Your task to perform on an android device: open app "Google Find My Device" (install if not already installed) Image 0: 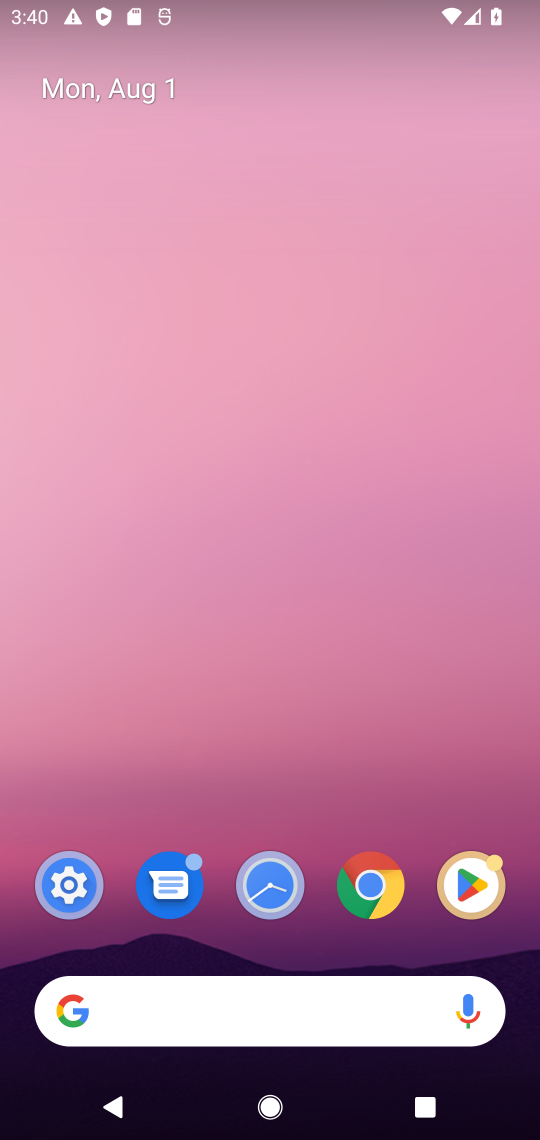
Step 0: click (496, 881)
Your task to perform on an android device: open app "Google Find My Device" (install if not already installed) Image 1: 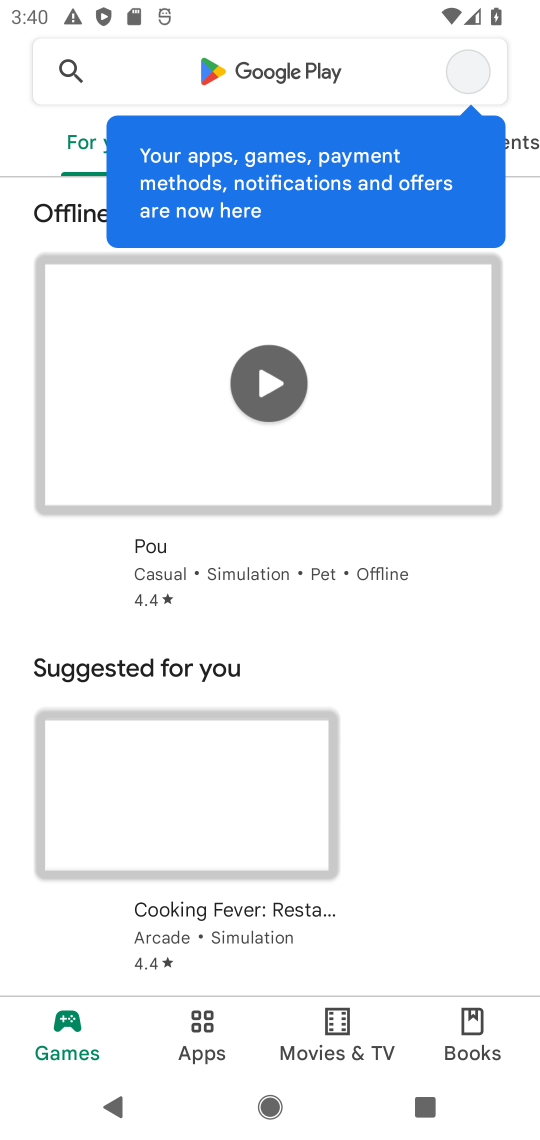
Step 1: click (255, 80)
Your task to perform on an android device: open app "Google Find My Device" (install if not already installed) Image 2: 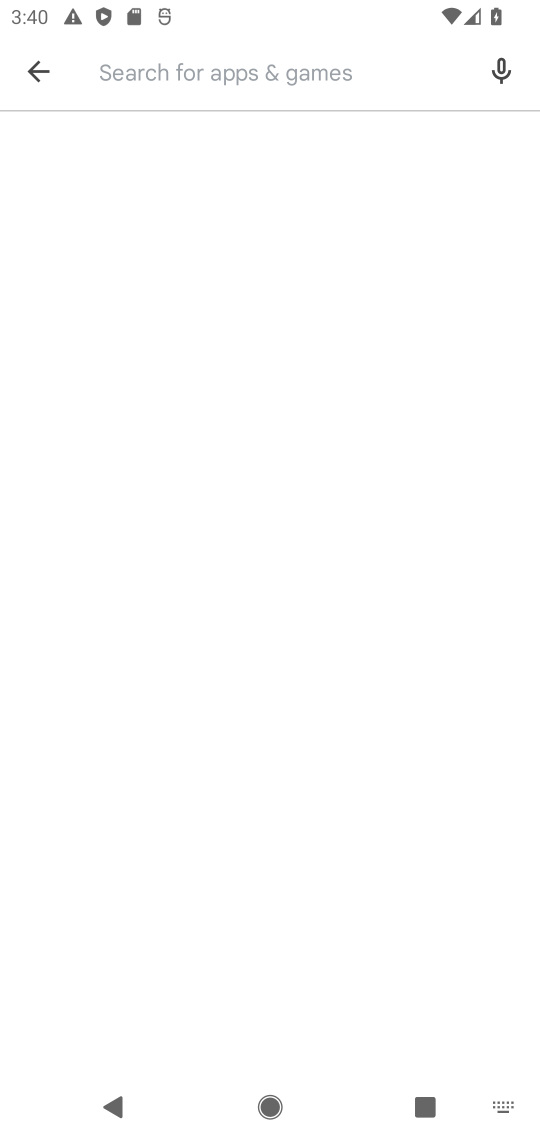
Step 2: click (67, 52)
Your task to perform on an android device: open app "Google Find My Device" (install if not already installed) Image 3: 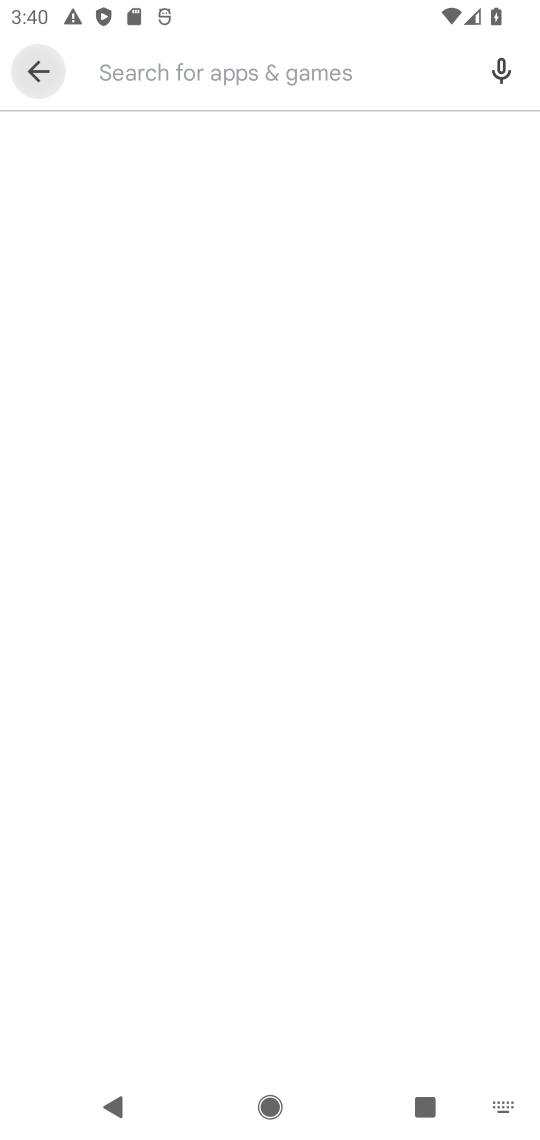
Step 3: click (178, 71)
Your task to perform on an android device: open app "Google Find My Device" (install if not already installed) Image 4: 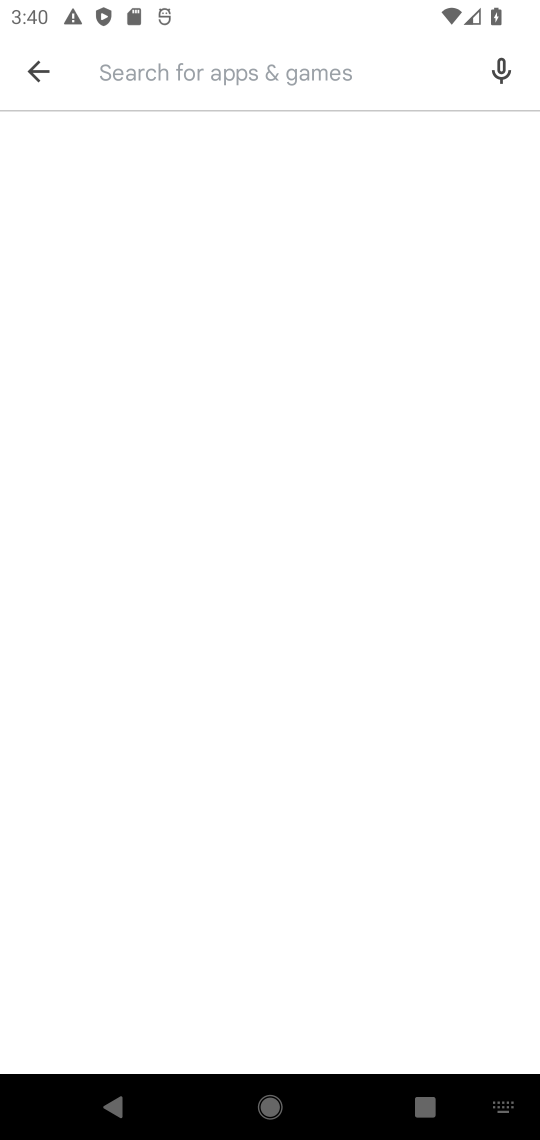
Step 4: type "google find my device"
Your task to perform on an android device: open app "Google Find My Device" (install if not already installed) Image 5: 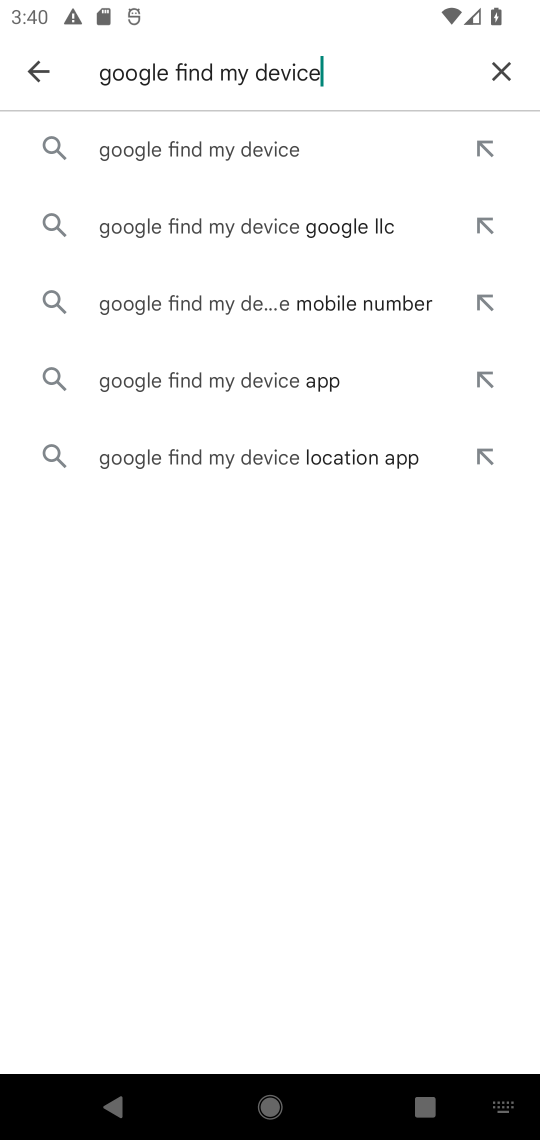
Step 5: click (336, 154)
Your task to perform on an android device: open app "Google Find My Device" (install if not already installed) Image 6: 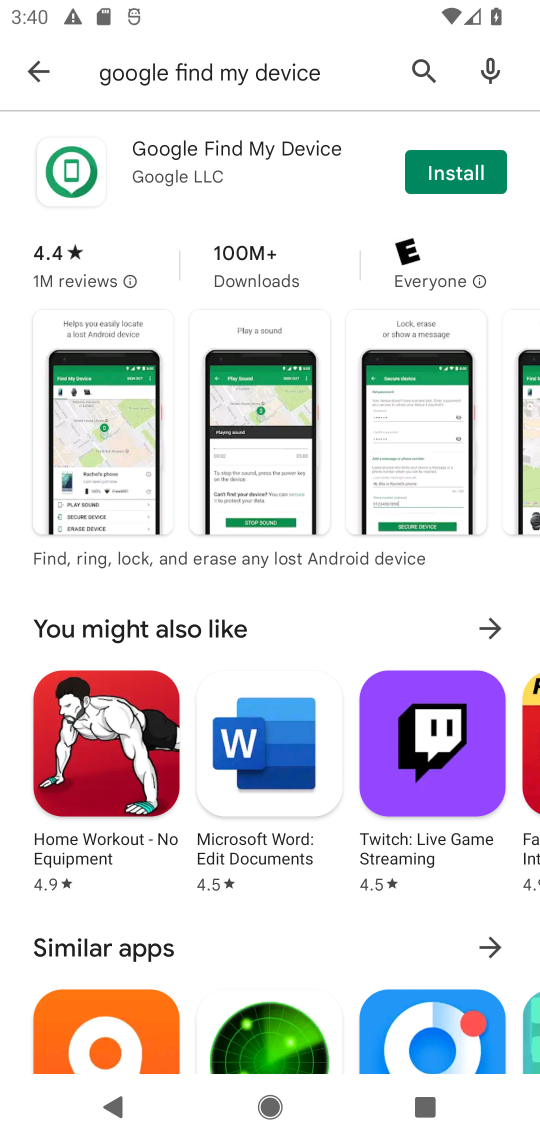
Step 6: click (427, 165)
Your task to perform on an android device: open app "Google Find My Device" (install if not already installed) Image 7: 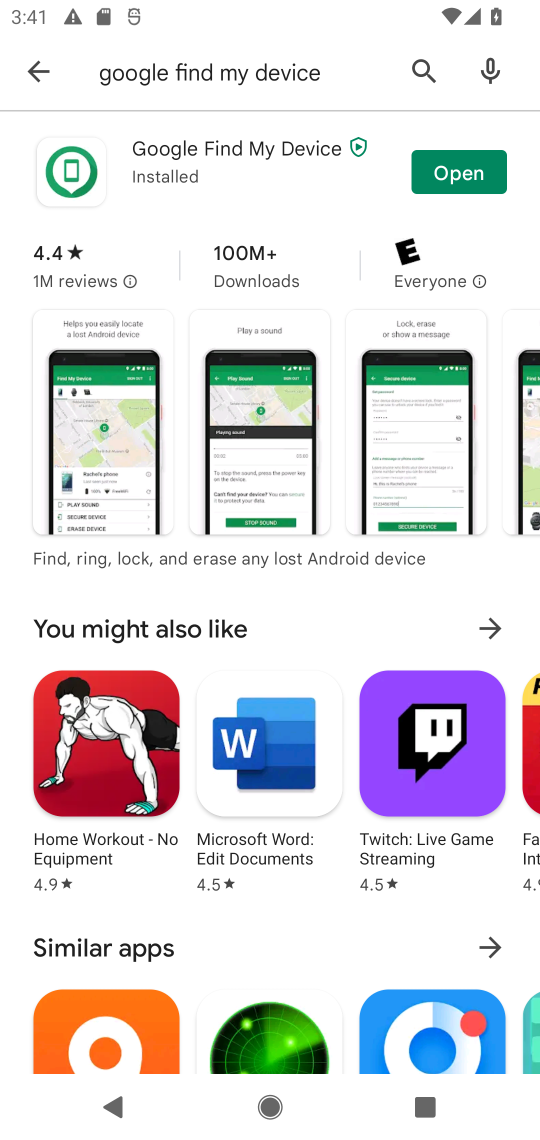
Step 7: click (459, 167)
Your task to perform on an android device: open app "Google Find My Device" (install if not already installed) Image 8: 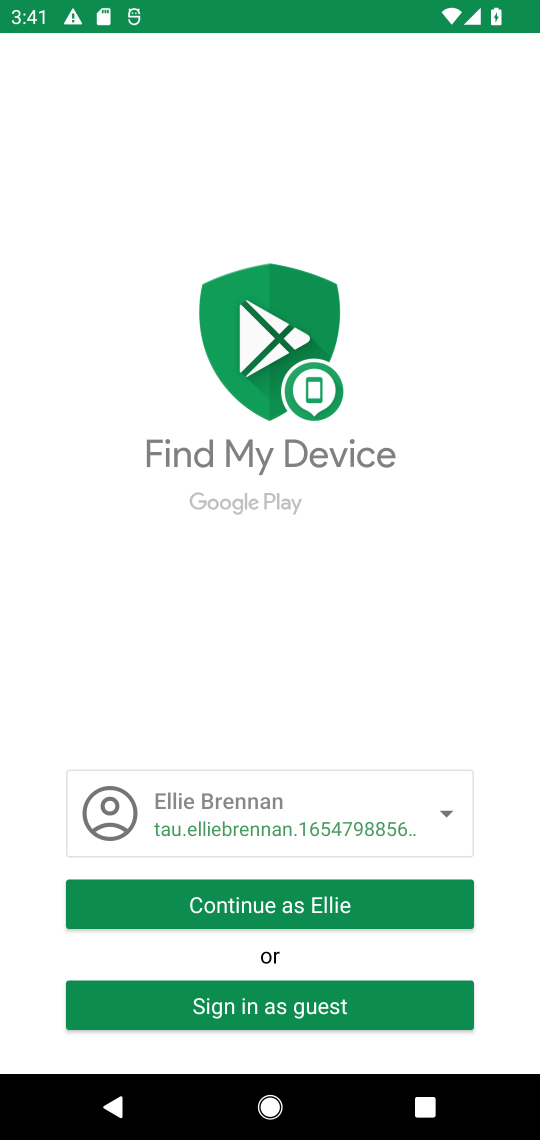
Step 8: task complete